Your task to perform on an android device: toggle javascript in the chrome app Image 0: 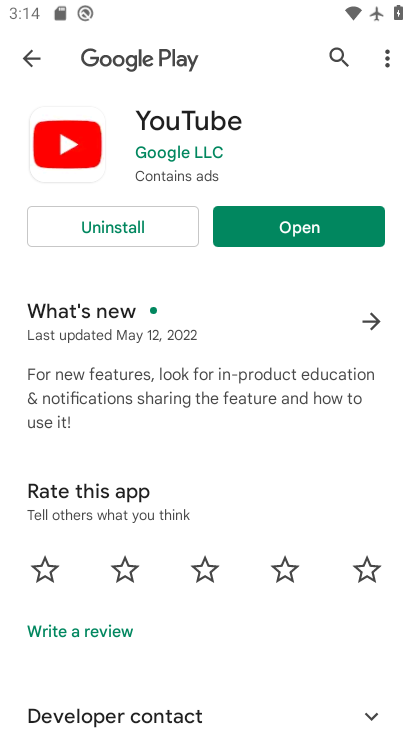
Step 0: press home button
Your task to perform on an android device: toggle javascript in the chrome app Image 1: 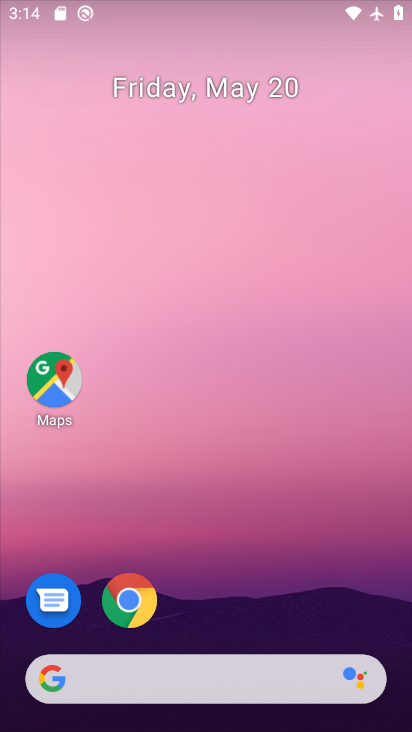
Step 1: drag from (288, 484) to (190, 10)
Your task to perform on an android device: toggle javascript in the chrome app Image 2: 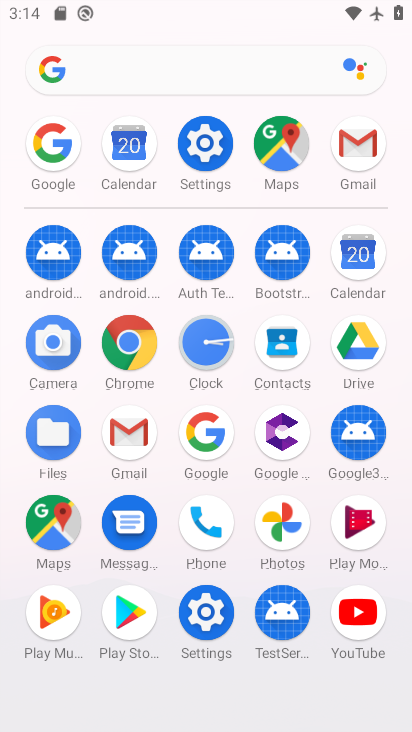
Step 2: click (135, 340)
Your task to perform on an android device: toggle javascript in the chrome app Image 3: 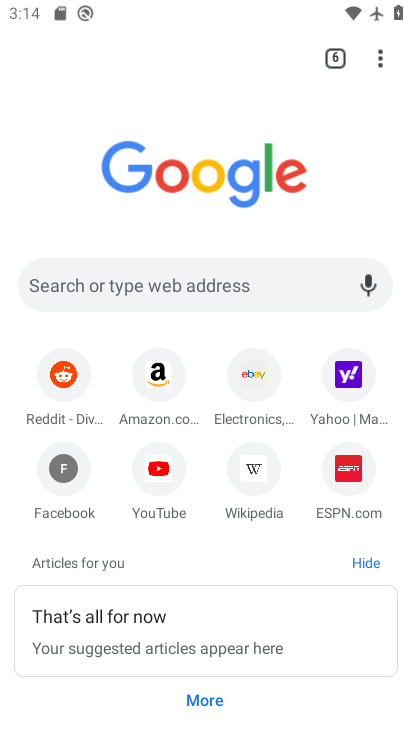
Step 3: click (381, 54)
Your task to perform on an android device: toggle javascript in the chrome app Image 4: 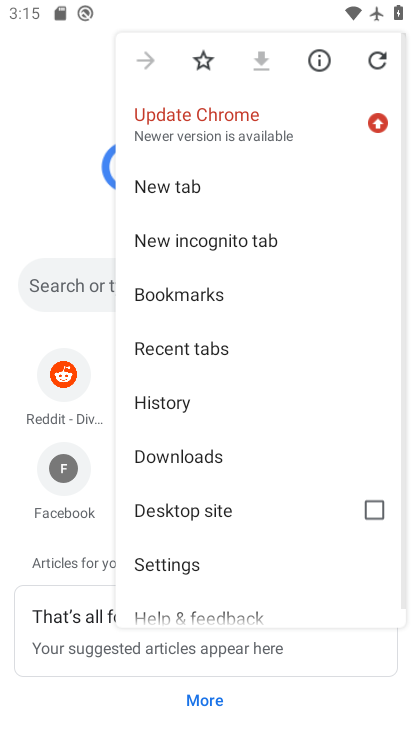
Step 4: click (251, 568)
Your task to perform on an android device: toggle javascript in the chrome app Image 5: 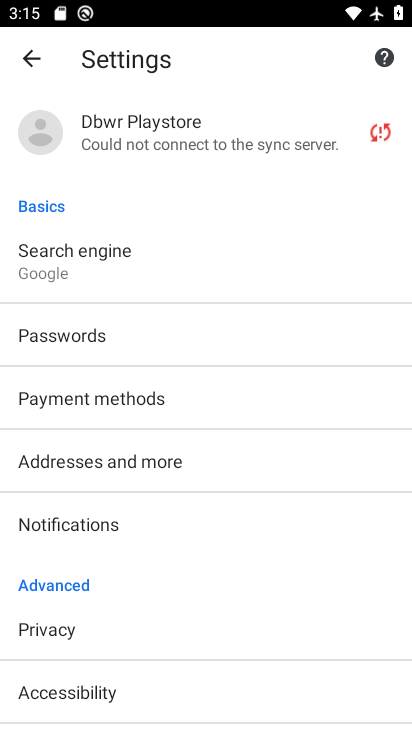
Step 5: drag from (190, 561) to (169, 203)
Your task to perform on an android device: toggle javascript in the chrome app Image 6: 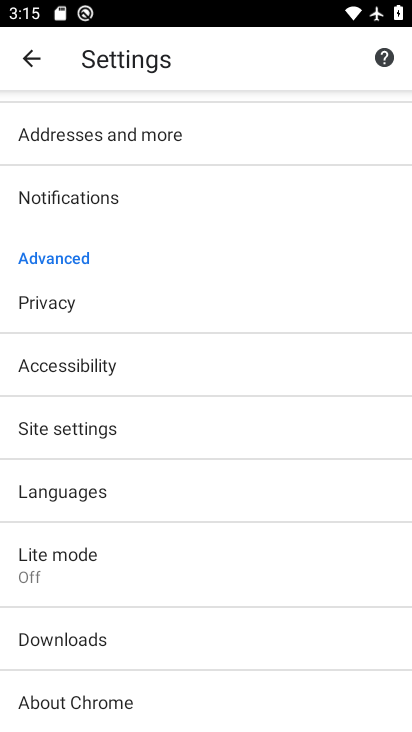
Step 6: click (133, 427)
Your task to perform on an android device: toggle javascript in the chrome app Image 7: 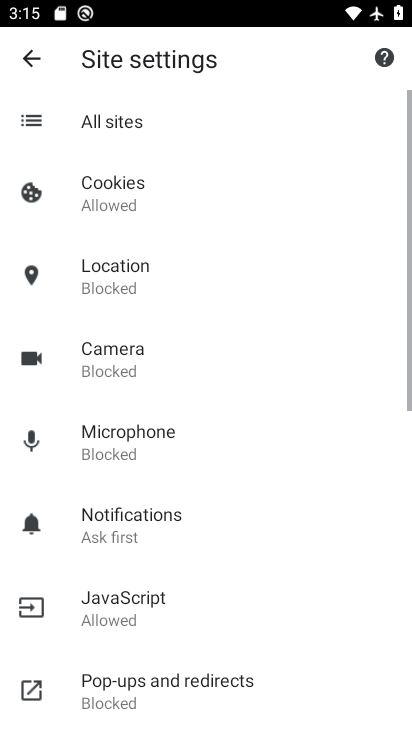
Step 7: click (172, 604)
Your task to perform on an android device: toggle javascript in the chrome app Image 8: 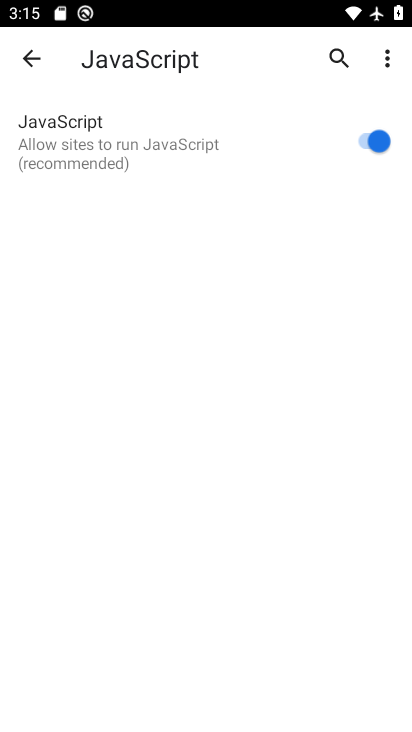
Step 8: click (371, 130)
Your task to perform on an android device: toggle javascript in the chrome app Image 9: 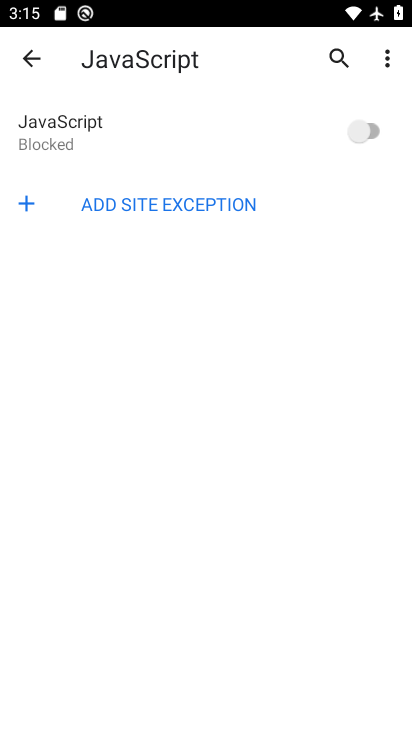
Step 9: task complete